Your task to perform on an android device: turn off airplane mode Image 0: 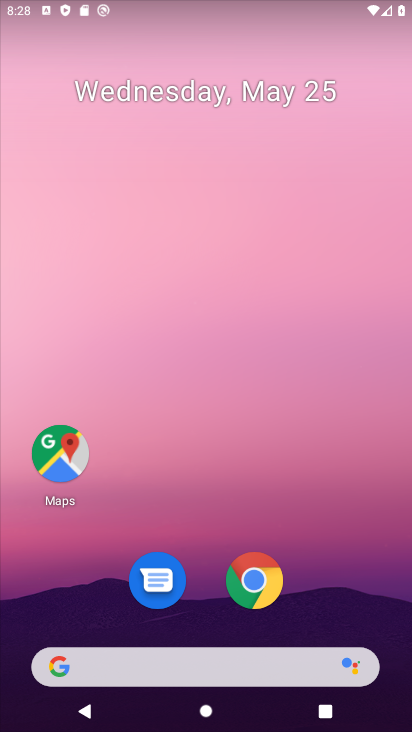
Step 0: drag from (367, 3) to (257, 487)
Your task to perform on an android device: turn off airplane mode Image 1: 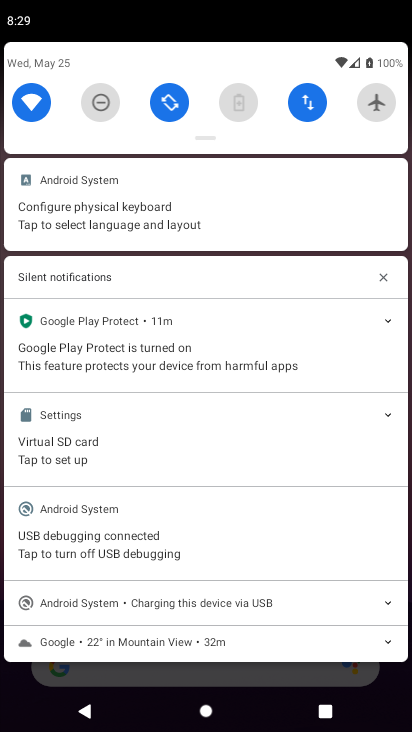
Step 1: task complete